Your task to perform on an android device: make emails show in primary in the gmail app Image 0: 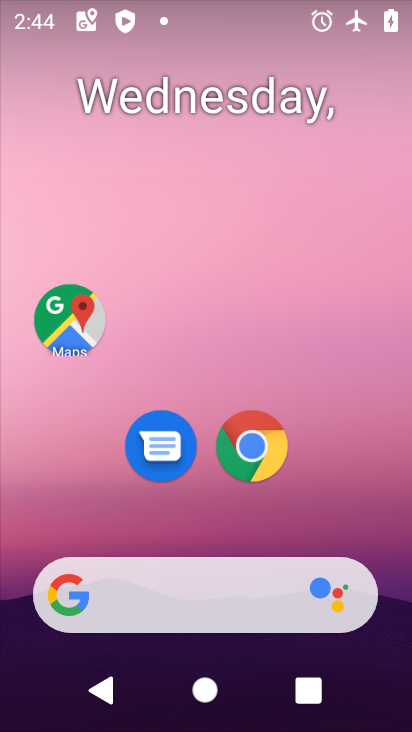
Step 0: drag from (214, 534) to (232, 158)
Your task to perform on an android device: make emails show in primary in the gmail app Image 1: 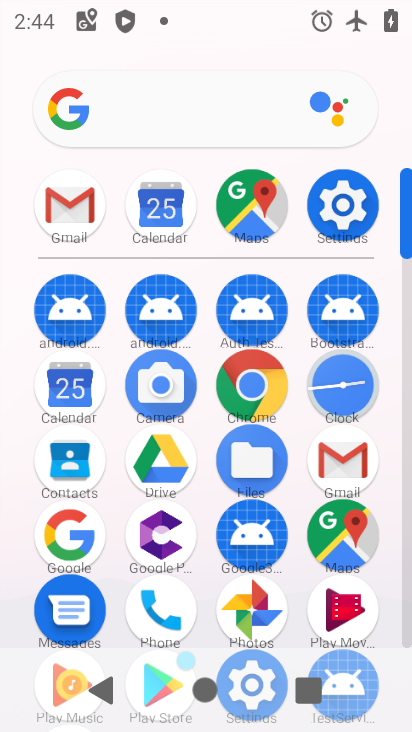
Step 1: click (84, 222)
Your task to perform on an android device: make emails show in primary in the gmail app Image 2: 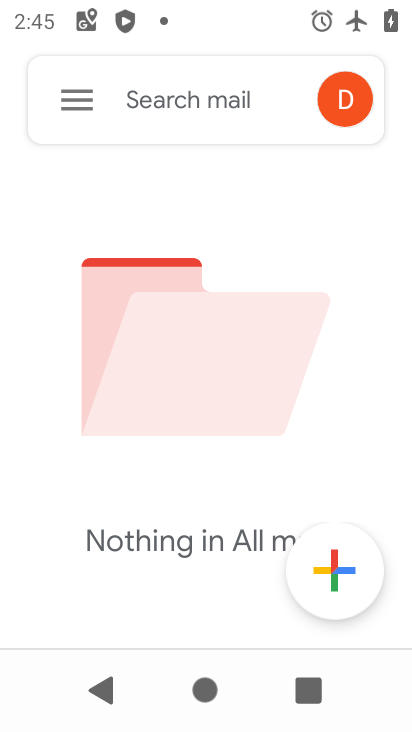
Step 2: click (69, 83)
Your task to perform on an android device: make emails show in primary in the gmail app Image 3: 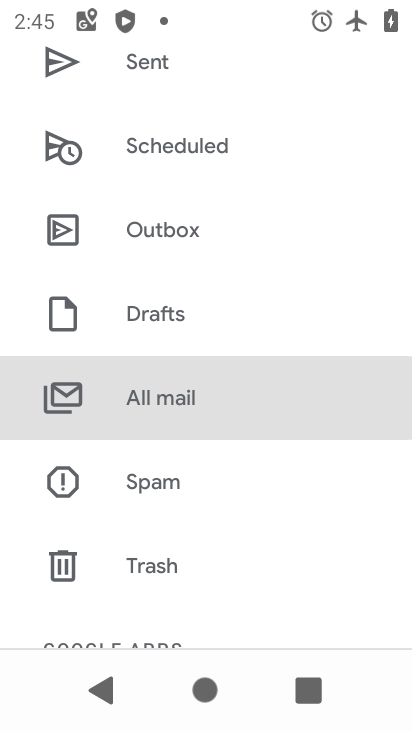
Step 3: drag from (162, 554) to (224, 236)
Your task to perform on an android device: make emails show in primary in the gmail app Image 4: 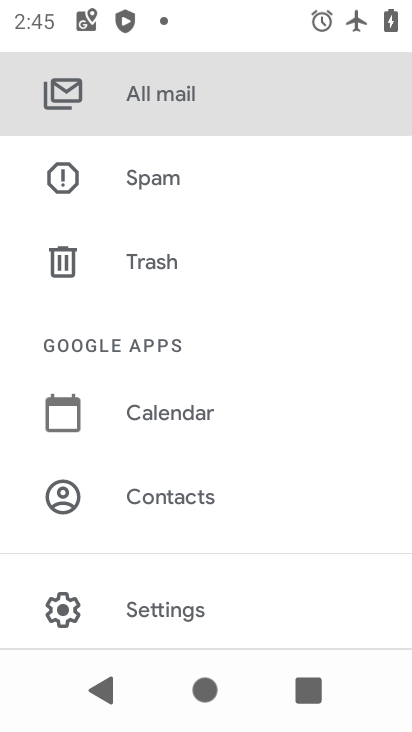
Step 4: click (204, 611)
Your task to perform on an android device: make emails show in primary in the gmail app Image 5: 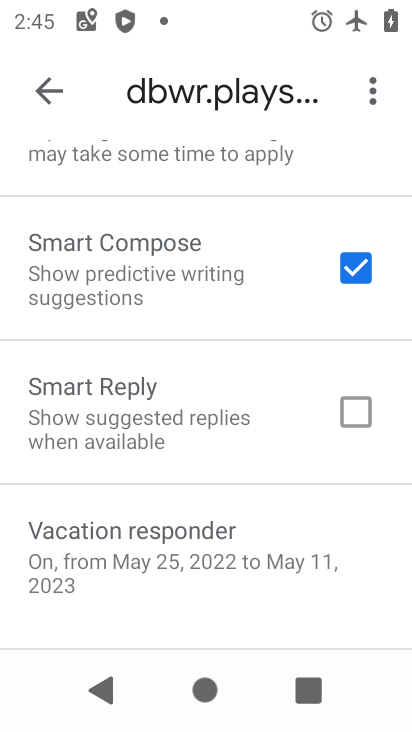
Step 5: drag from (205, 608) to (277, 354)
Your task to perform on an android device: make emails show in primary in the gmail app Image 6: 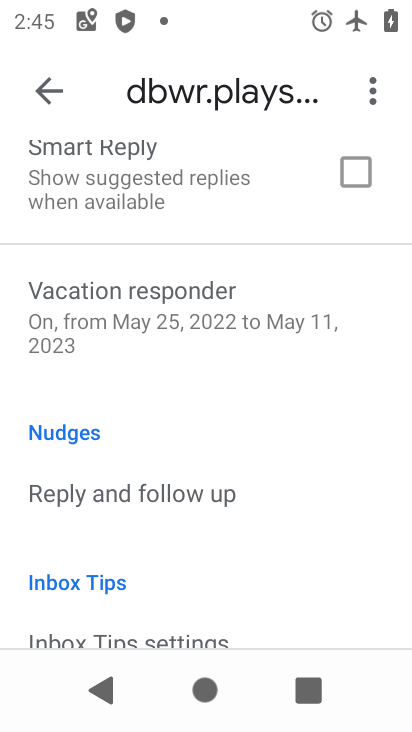
Step 6: drag from (191, 231) to (206, 529)
Your task to perform on an android device: make emails show in primary in the gmail app Image 7: 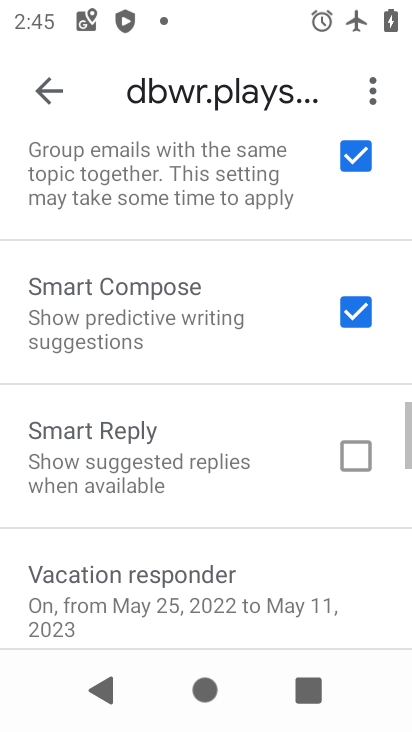
Step 7: drag from (216, 226) to (247, 562)
Your task to perform on an android device: make emails show in primary in the gmail app Image 8: 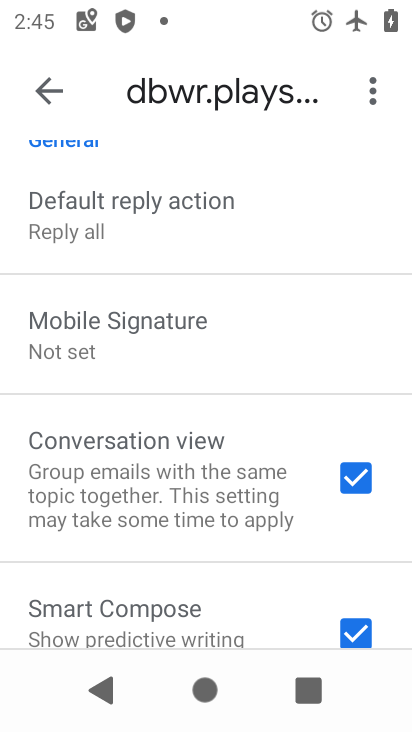
Step 8: drag from (241, 255) to (252, 508)
Your task to perform on an android device: make emails show in primary in the gmail app Image 9: 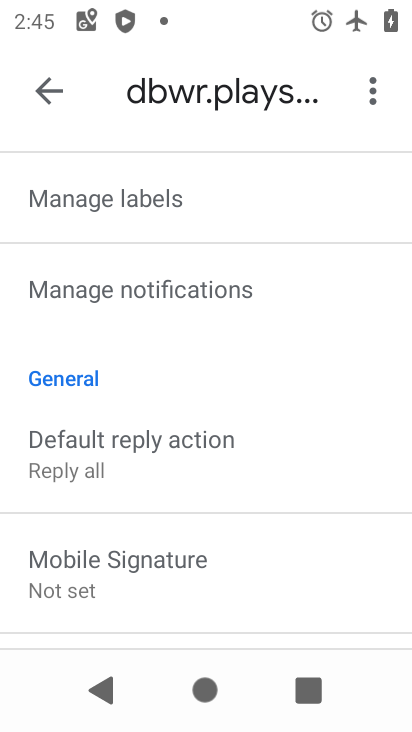
Step 9: drag from (241, 265) to (237, 573)
Your task to perform on an android device: make emails show in primary in the gmail app Image 10: 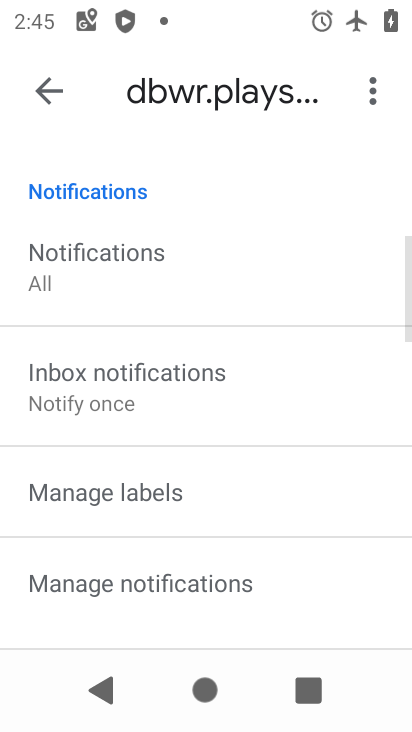
Step 10: drag from (227, 282) to (231, 548)
Your task to perform on an android device: make emails show in primary in the gmail app Image 11: 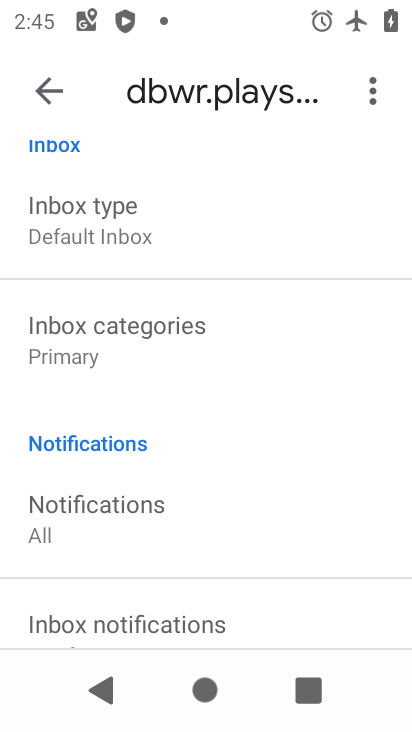
Step 11: drag from (213, 281) to (238, 491)
Your task to perform on an android device: make emails show in primary in the gmail app Image 12: 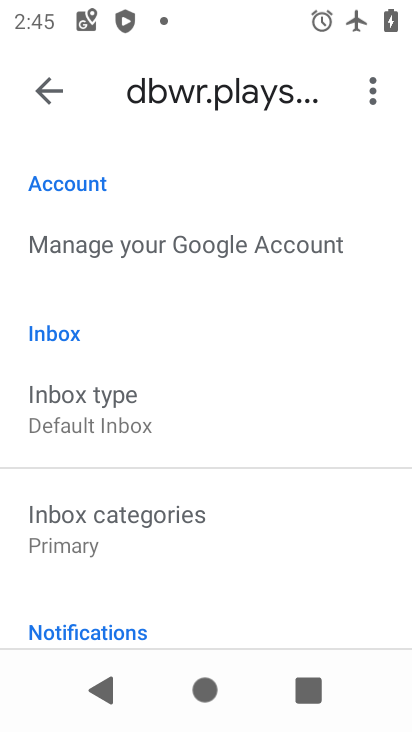
Step 12: click (147, 385)
Your task to perform on an android device: make emails show in primary in the gmail app Image 13: 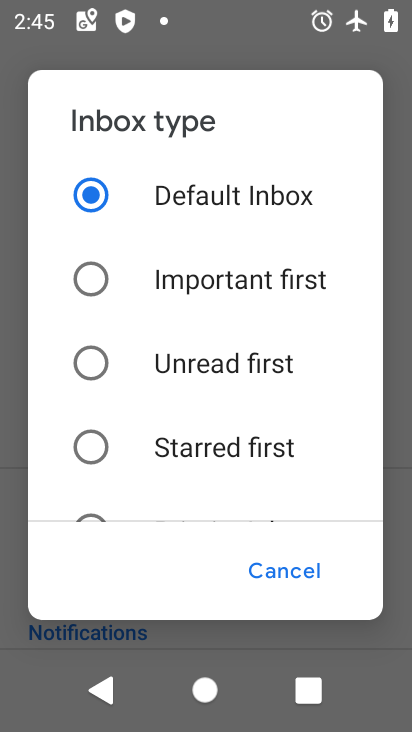
Step 13: drag from (173, 437) to (248, 254)
Your task to perform on an android device: make emails show in primary in the gmail app Image 14: 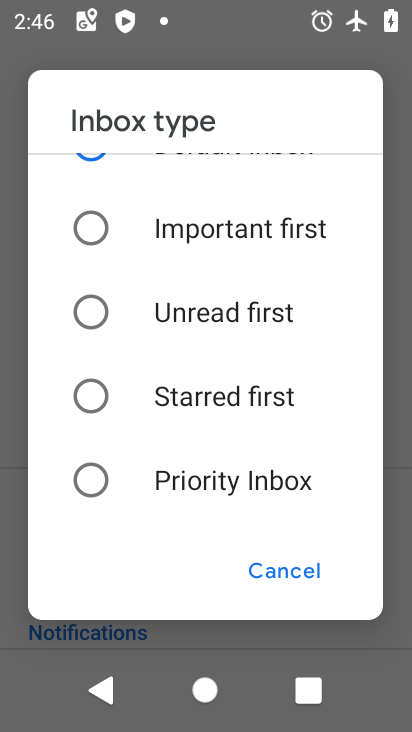
Step 14: click (219, 240)
Your task to perform on an android device: make emails show in primary in the gmail app Image 15: 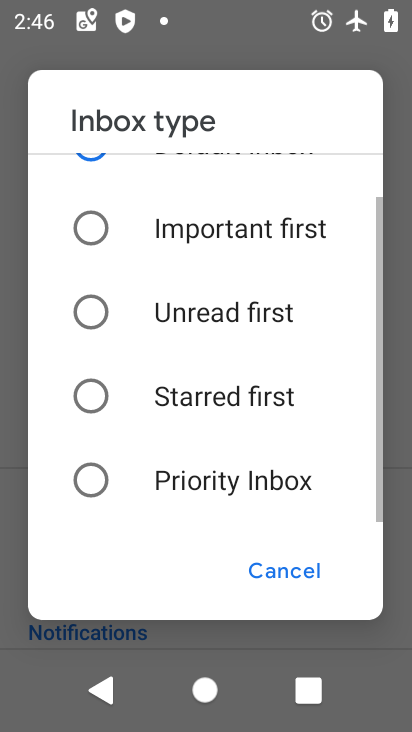
Step 15: drag from (204, 479) to (225, 347)
Your task to perform on an android device: make emails show in primary in the gmail app Image 16: 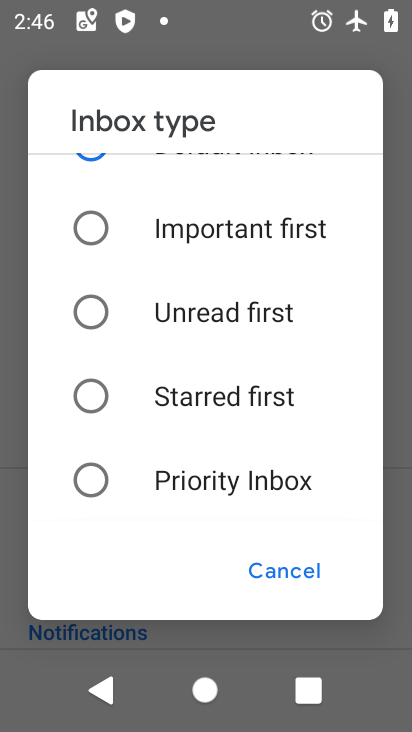
Step 16: click (276, 578)
Your task to perform on an android device: make emails show in primary in the gmail app Image 17: 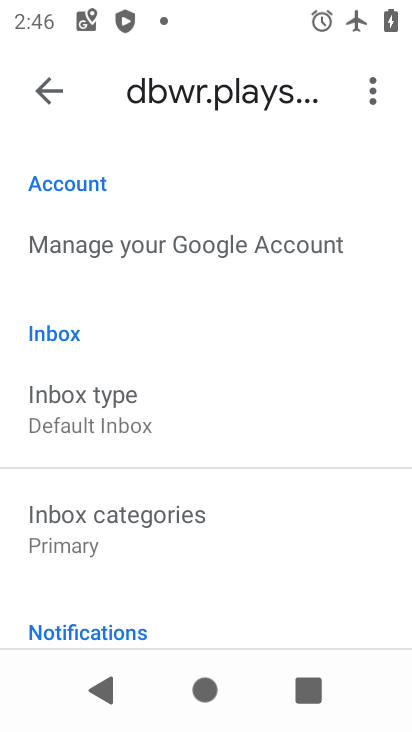
Step 17: click (159, 519)
Your task to perform on an android device: make emails show in primary in the gmail app Image 18: 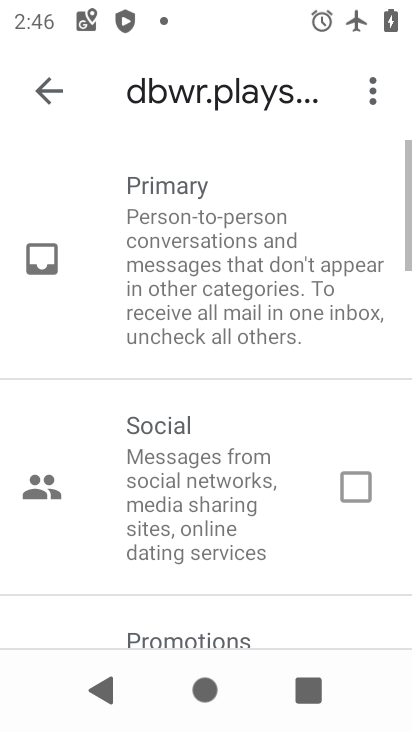
Step 18: click (175, 282)
Your task to perform on an android device: make emails show in primary in the gmail app Image 19: 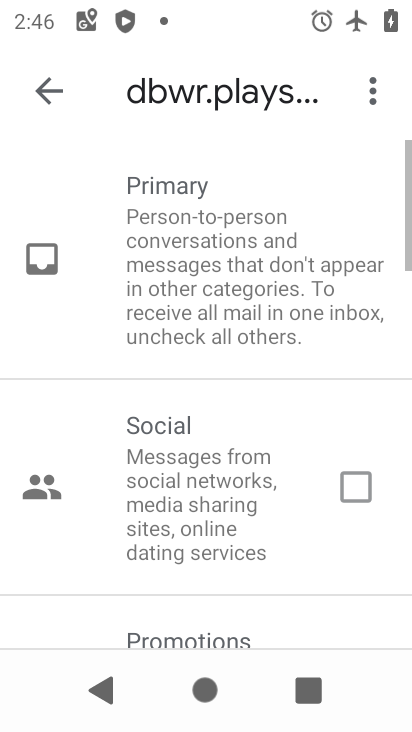
Step 19: task complete